Your task to perform on an android device: Open Google Chrome and open the bookmarks view Image 0: 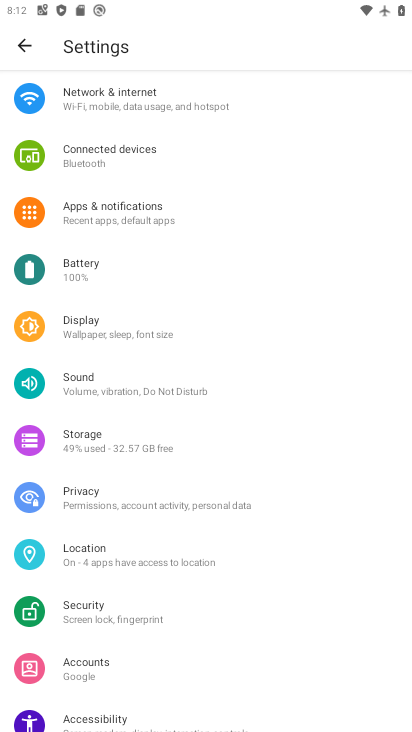
Step 0: press home button
Your task to perform on an android device: Open Google Chrome and open the bookmarks view Image 1: 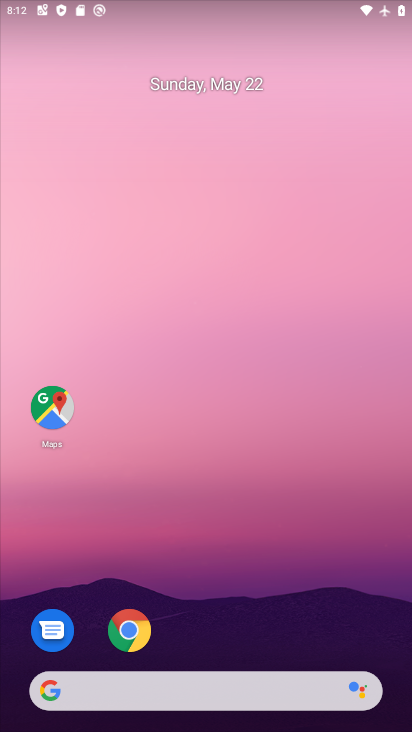
Step 1: click (128, 640)
Your task to perform on an android device: Open Google Chrome and open the bookmarks view Image 2: 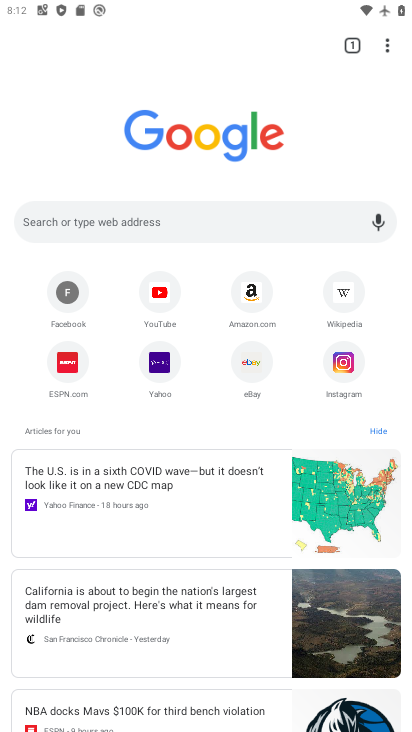
Step 2: click (386, 51)
Your task to perform on an android device: Open Google Chrome and open the bookmarks view Image 3: 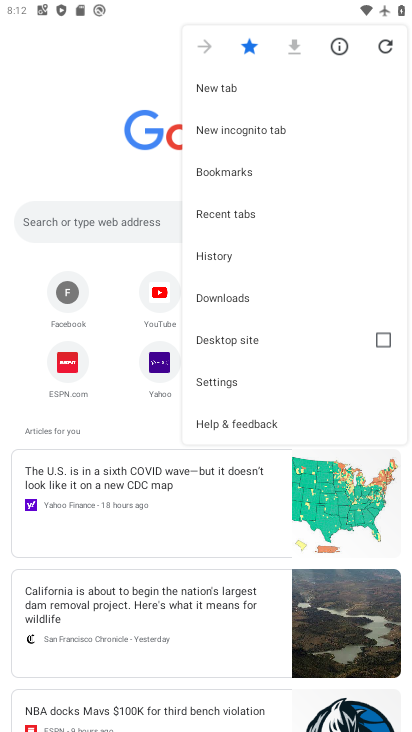
Step 3: click (220, 178)
Your task to perform on an android device: Open Google Chrome and open the bookmarks view Image 4: 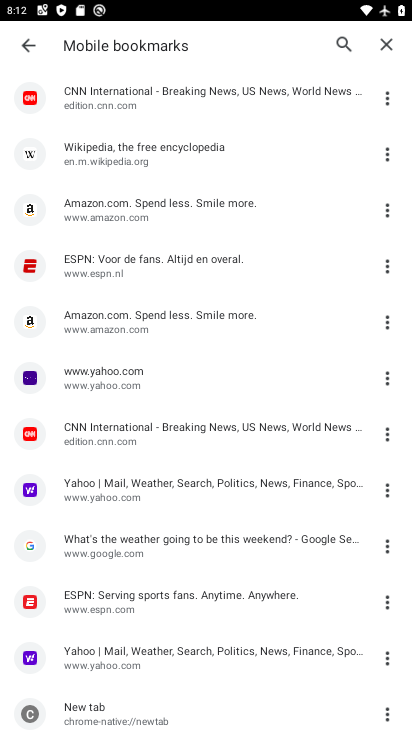
Step 4: drag from (342, 496) to (307, 171)
Your task to perform on an android device: Open Google Chrome and open the bookmarks view Image 5: 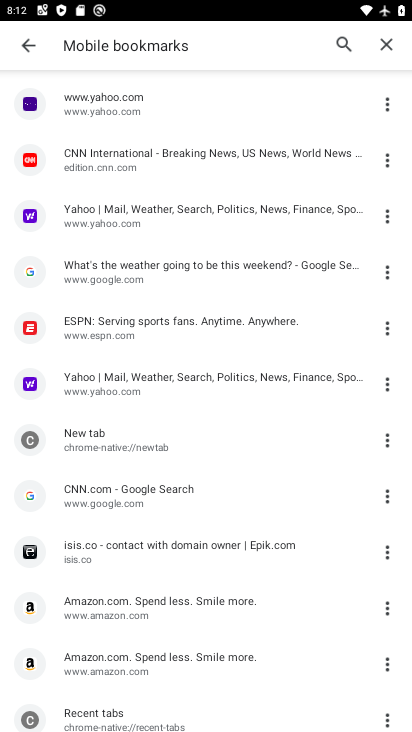
Step 5: drag from (289, 519) to (288, 216)
Your task to perform on an android device: Open Google Chrome and open the bookmarks view Image 6: 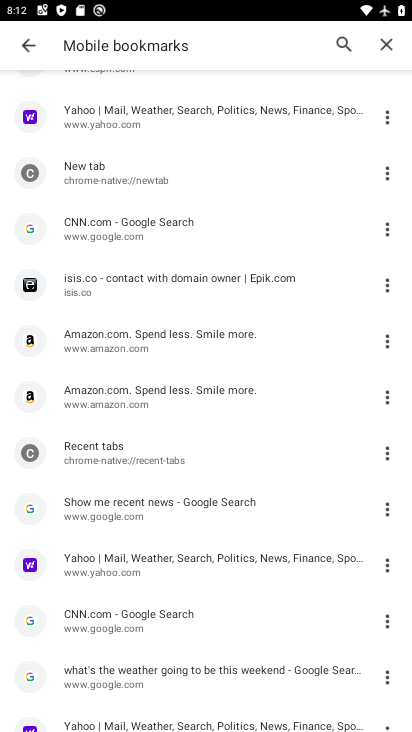
Step 6: drag from (285, 496) to (280, 131)
Your task to perform on an android device: Open Google Chrome and open the bookmarks view Image 7: 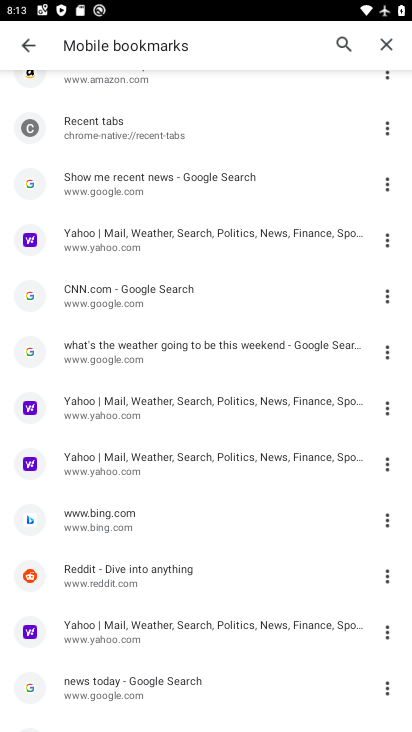
Step 7: drag from (328, 520) to (302, 120)
Your task to perform on an android device: Open Google Chrome and open the bookmarks view Image 8: 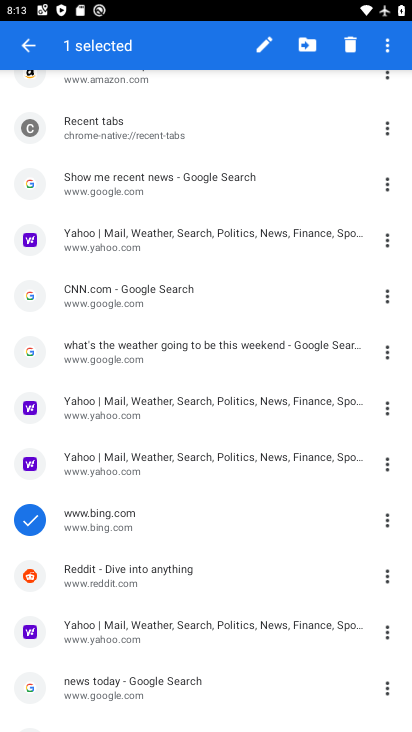
Step 8: click (22, 45)
Your task to perform on an android device: Open Google Chrome and open the bookmarks view Image 9: 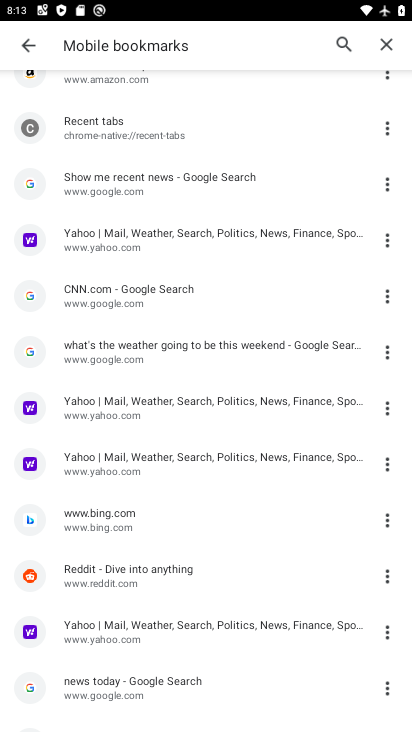
Step 9: task complete